Your task to perform on an android device: Open the stopwatch Image 0: 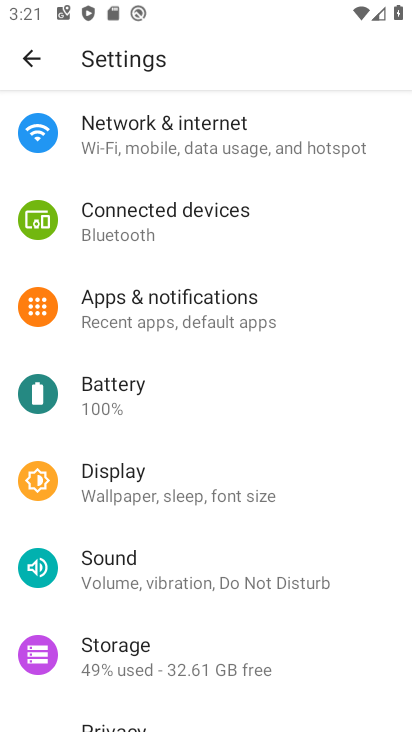
Step 0: press home button
Your task to perform on an android device: Open the stopwatch Image 1: 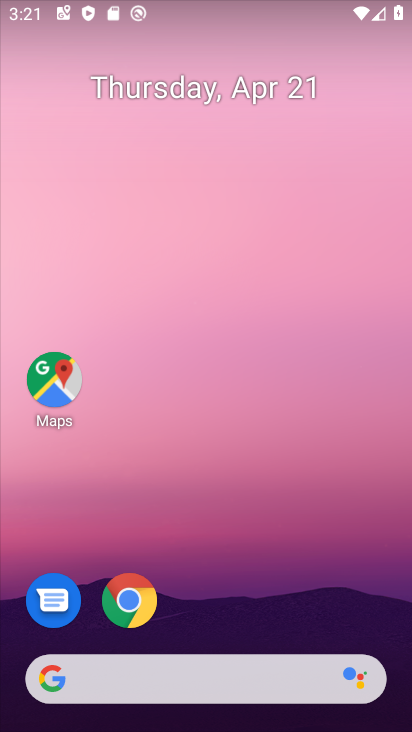
Step 1: drag from (233, 600) to (269, 21)
Your task to perform on an android device: Open the stopwatch Image 2: 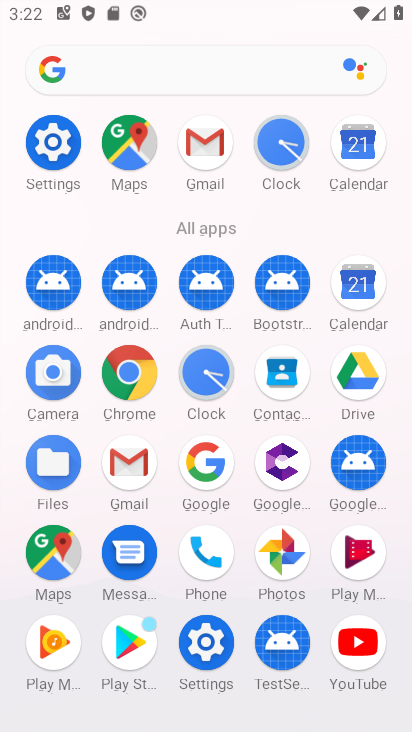
Step 2: click (283, 140)
Your task to perform on an android device: Open the stopwatch Image 3: 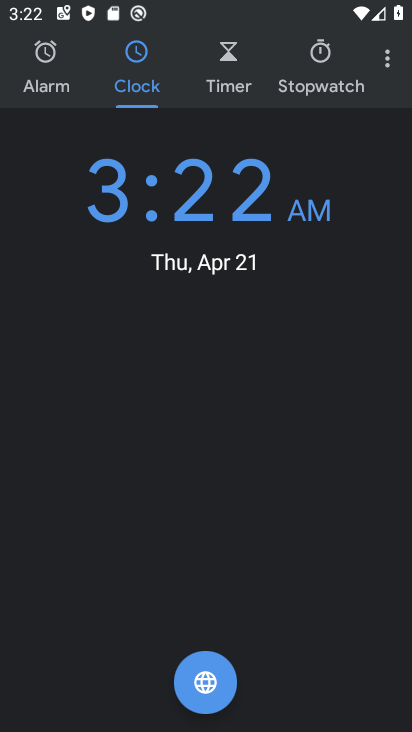
Step 3: click (325, 60)
Your task to perform on an android device: Open the stopwatch Image 4: 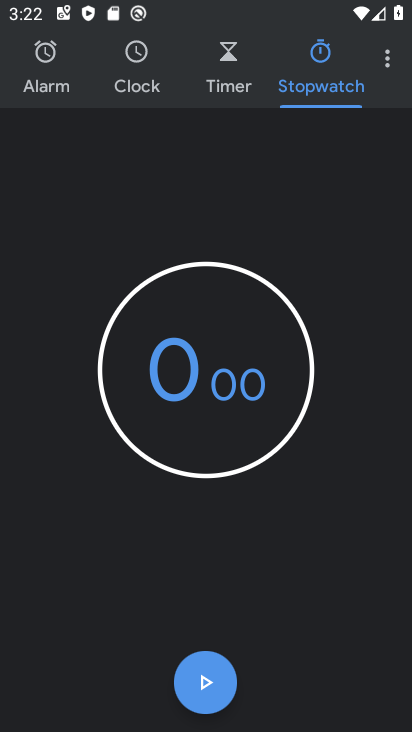
Step 4: task complete